Your task to perform on an android device: open a new tab in the chrome app Image 0: 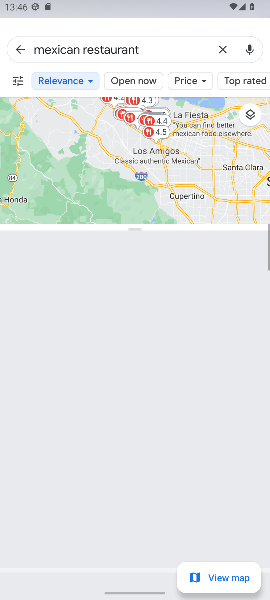
Step 0: press home button
Your task to perform on an android device: open a new tab in the chrome app Image 1: 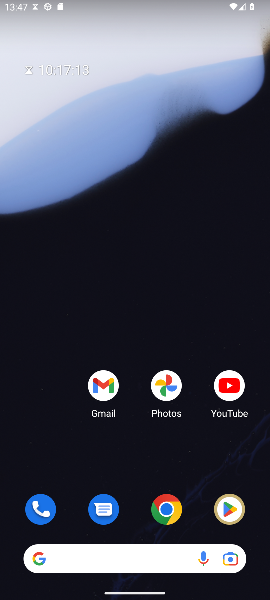
Step 1: click (170, 511)
Your task to perform on an android device: open a new tab in the chrome app Image 2: 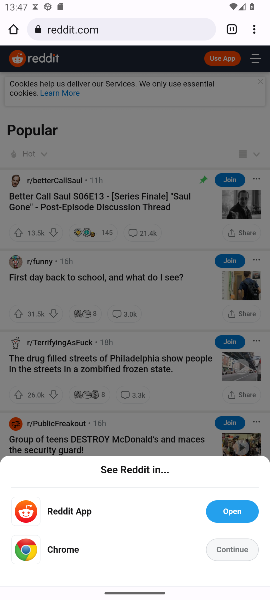
Step 2: click (231, 32)
Your task to perform on an android device: open a new tab in the chrome app Image 3: 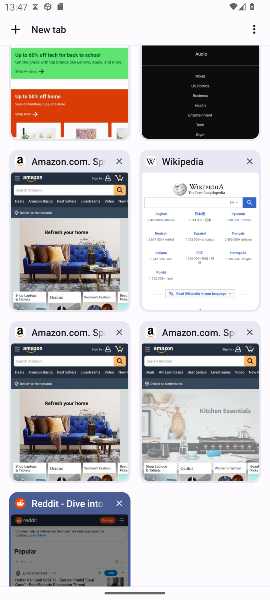
Step 3: click (14, 31)
Your task to perform on an android device: open a new tab in the chrome app Image 4: 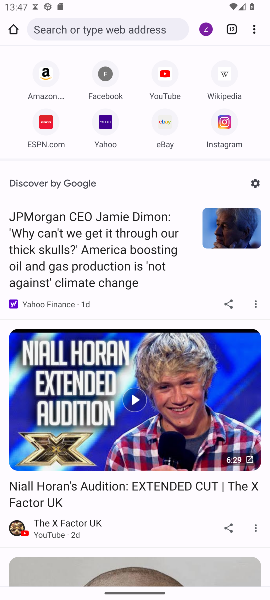
Step 4: task complete